Your task to perform on an android device: check google app version Image 0: 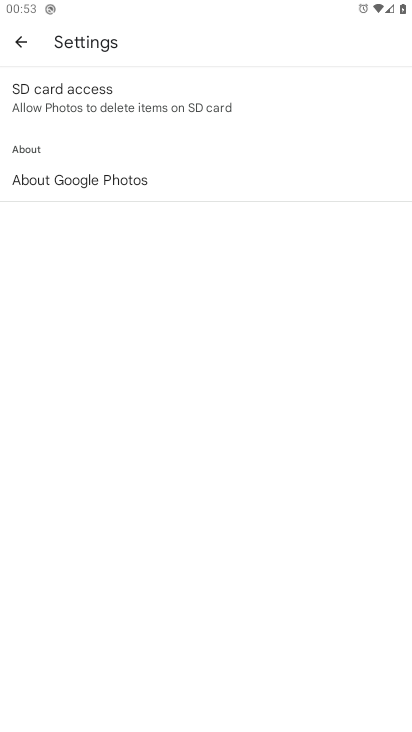
Step 0: press home button
Your task to perform on an android device: check google app version Image 1: 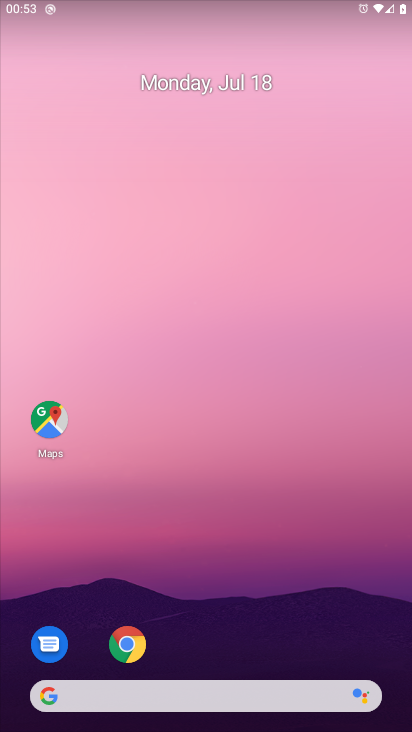
Step 1: drag from (297, 638) to (292, 155)
Your task to perform on an android device: check google app version Image 2: 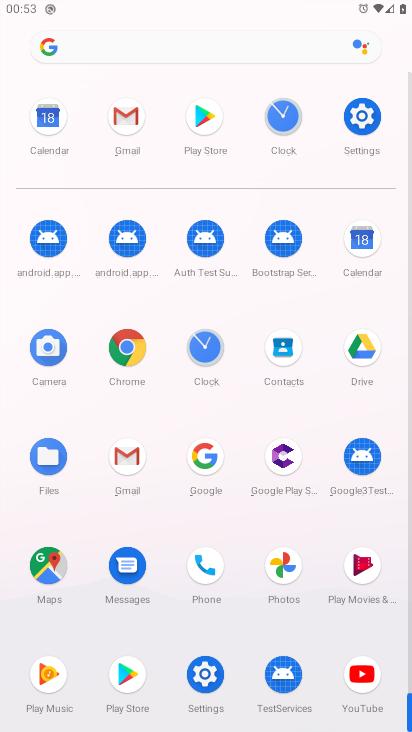
Step 2: click (204, 455)
Your task to perform on an android device: check google app version Image 3: 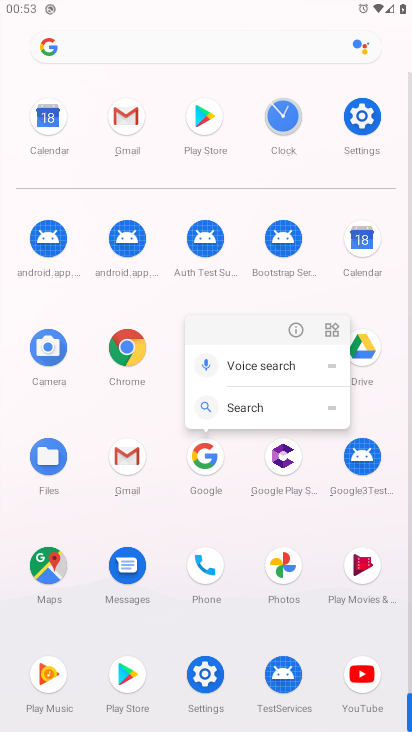
Step 3: click (291, 330)
Your task to perform on an android device: check google app version Image 4: 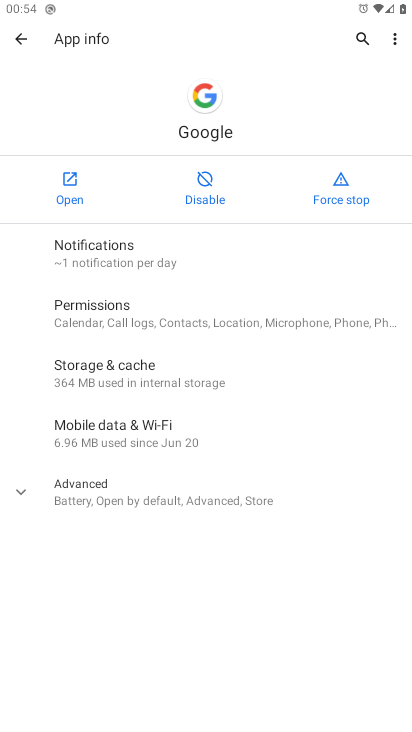
Step 4: click (34, 491)
Your task to perform on an android device: check google app version Image 5: 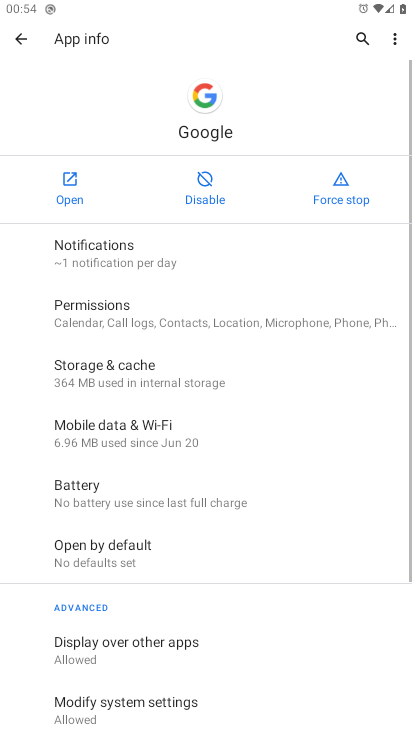
Step 5: task complete